Your task to perform on an android device: refresh tabs in the chrome app Image 0: 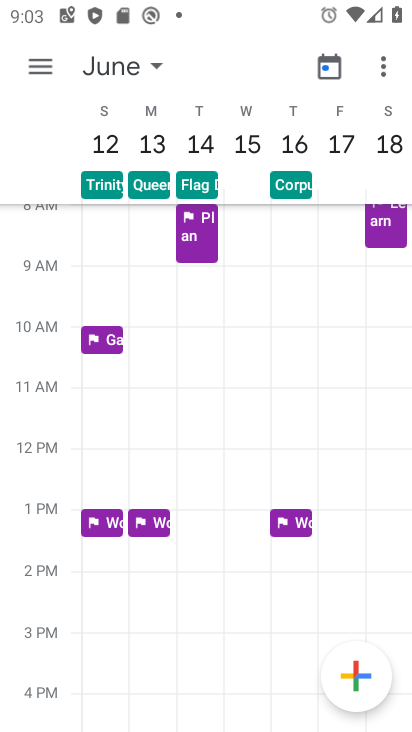
Step 0: press home button
Your task to perform on an android device: refresh tabs in the chrome app Image 1: 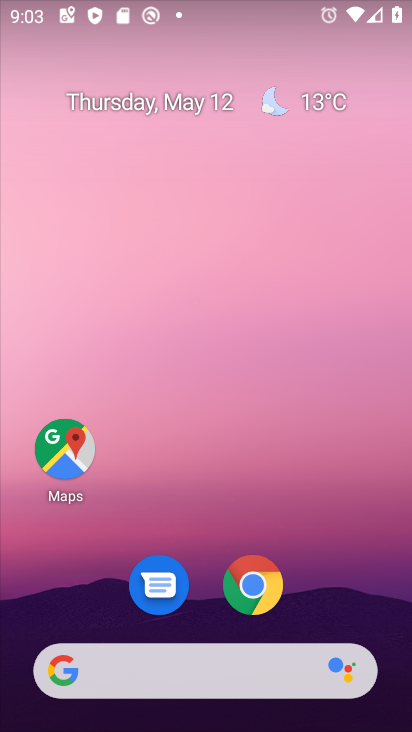
Step 1: click (270, 570)
Your task to perform on an android device: refresh tabs in the chrome app Image 2: 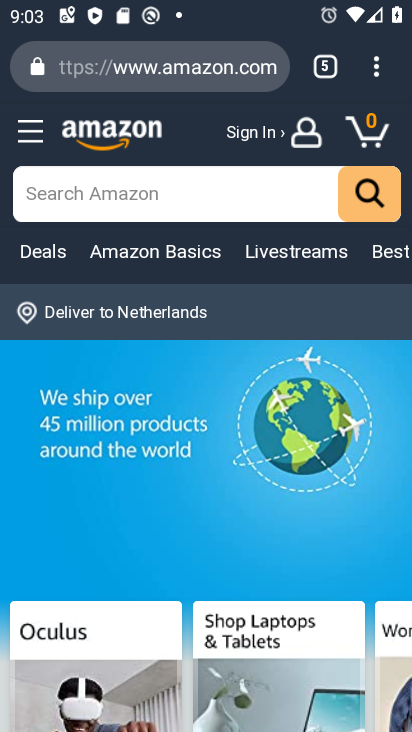
Step 2: click (374, 73)
Your task to perform on an android device: refresh tabs in the chrome app Image 3: 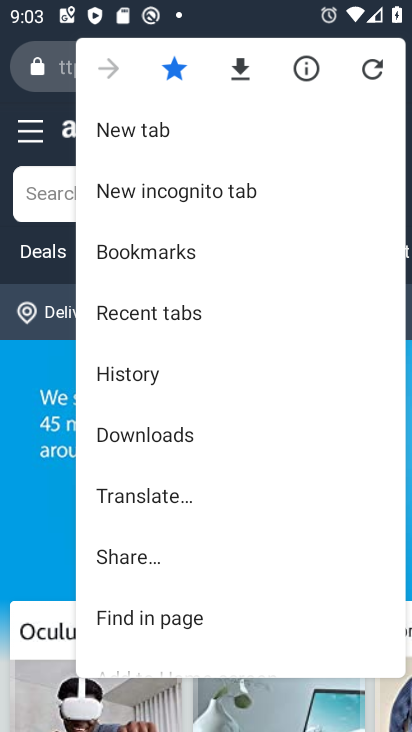
Step 3: click (372, 64)
Your task to perform on an android device: refresh tabs in the chrome app Image 4: 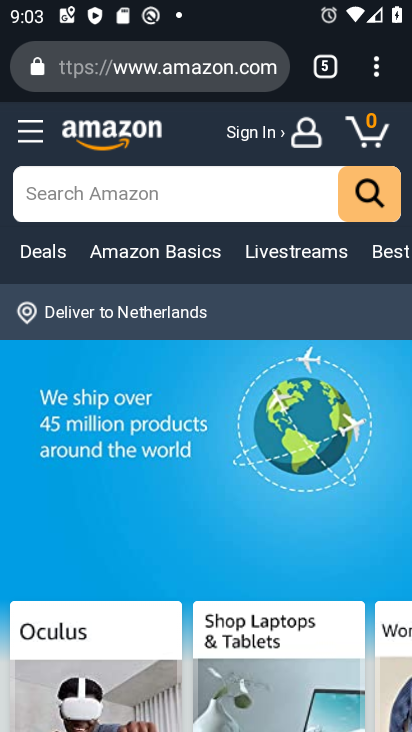
Step 4: task complete